Your task to perform on an android device: Show me productivity apps on the Play Store Image 0: 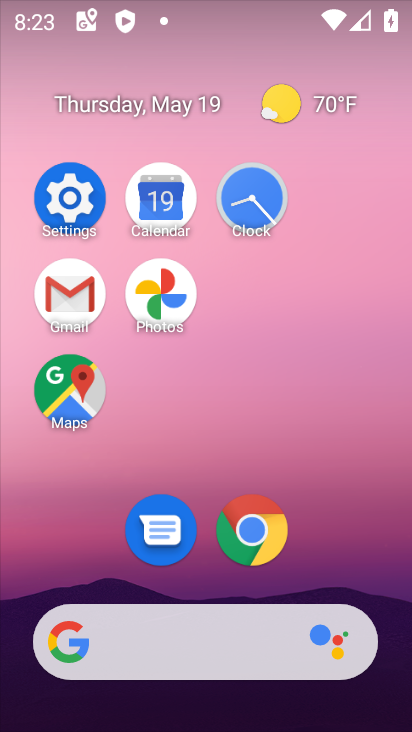
Step 0: drag from (319, 381) to (338, 146)
Your task to perform on an android device: Show me productivity apps on the Play Store Image 1: 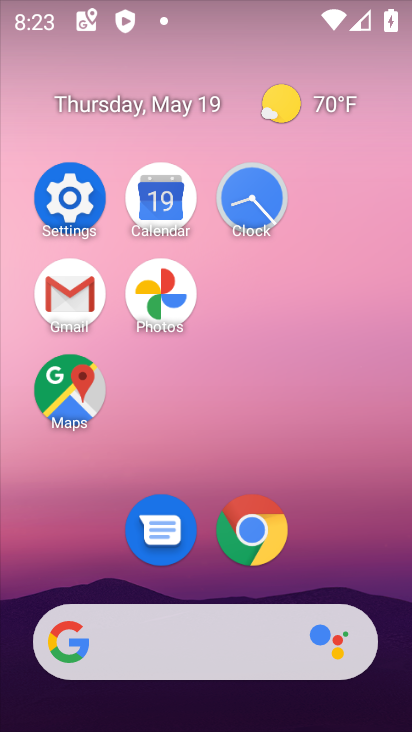
Step 1: drag from (260, 554) to (257, 103)
Your task to perform on an android device: Show me productivity apps on the Play Store Image 2: 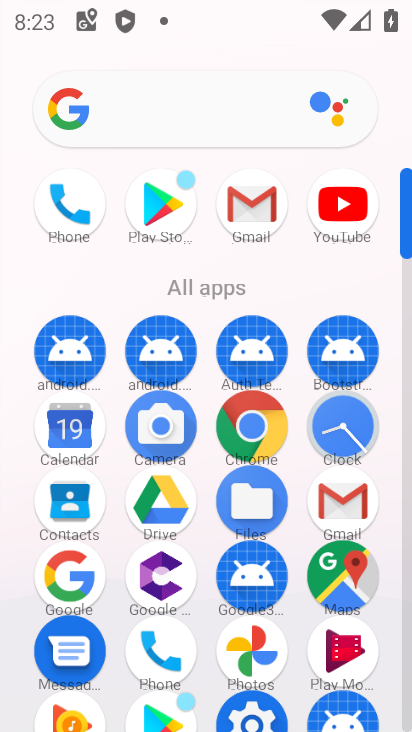
Step 2: drag from (198, 574) to (150, 247)
Your task to perform on an android device: Show me productivity apps on the Play Store Image 3: 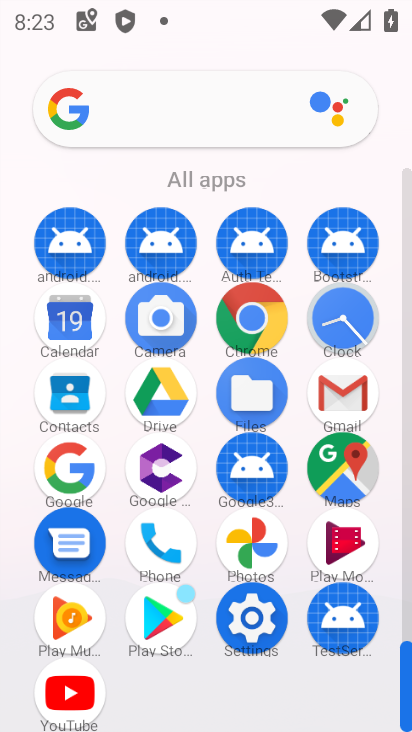
Step 3: click (133, 644)
Your task to perform on an android device: Show me productivity apps on the Play Store Image 4: 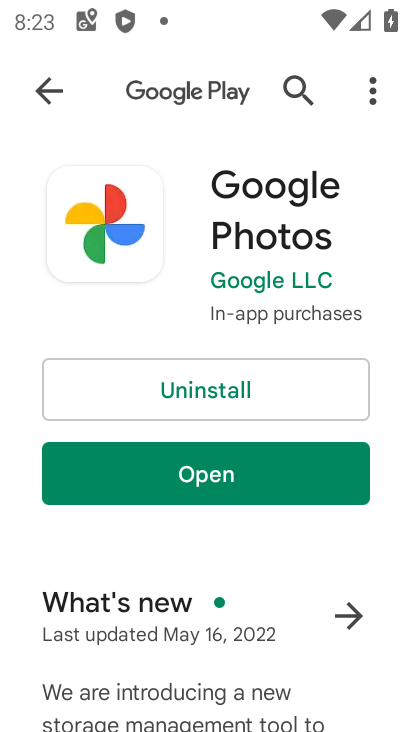
Step 4: click (57, 80)
Your task to perform on an android device: Show me productivity apps on the Play Store Image 5: 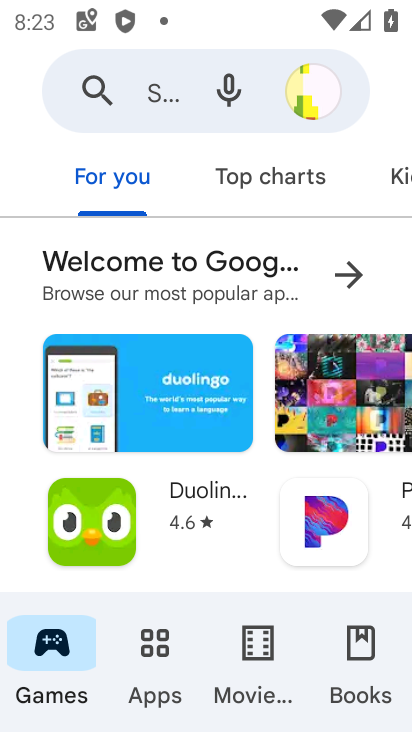
Step 5: click (168, 662)
Your task to perform on an android device: Show me productivity apps on the Play Store Image 6: 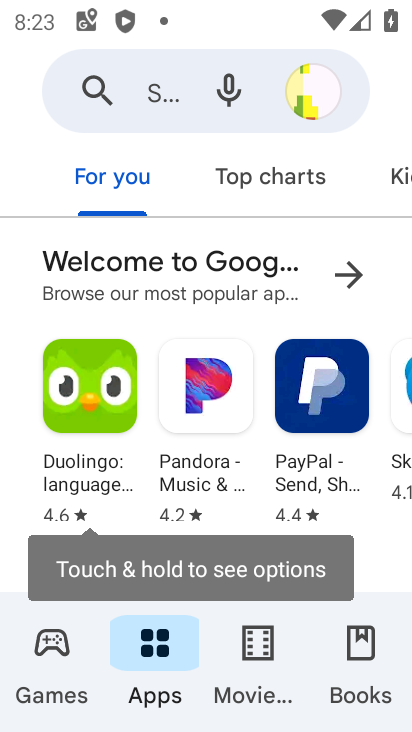
Step 6: drag from (356, 167) to (100, 165)
Your task to perform on an android device: Show me productivity apps on the Play Store Image 7: 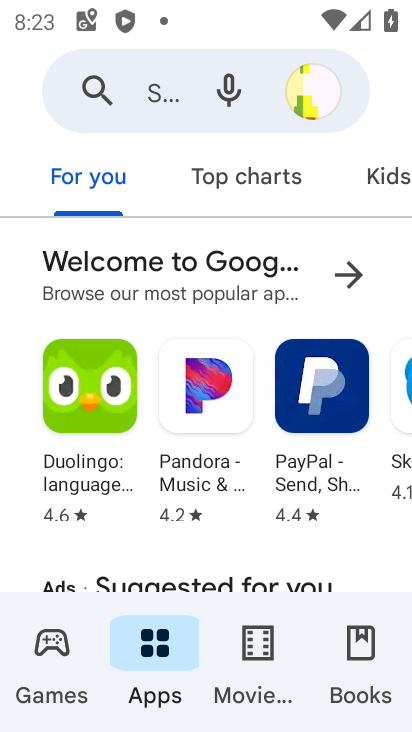
Step 7: drag from (344, 191) to (19, 187)
Your task to perform on an android device: Show me productivity apps on the Play Store Image 8: 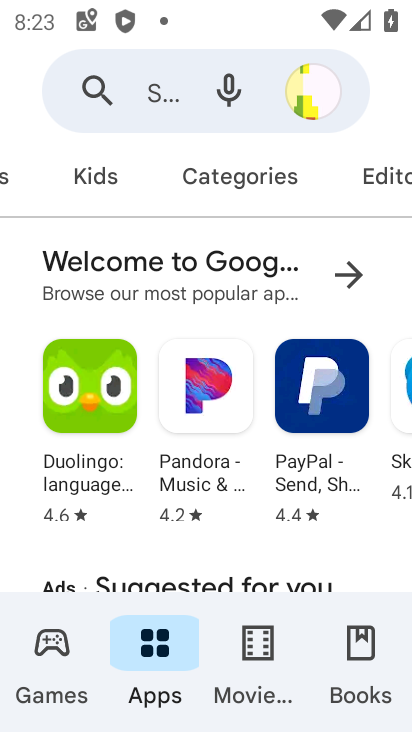
Step 8: click (193, 174)
Your task to perform on an android device: Show me productivity apps on the Play Store Image 9: 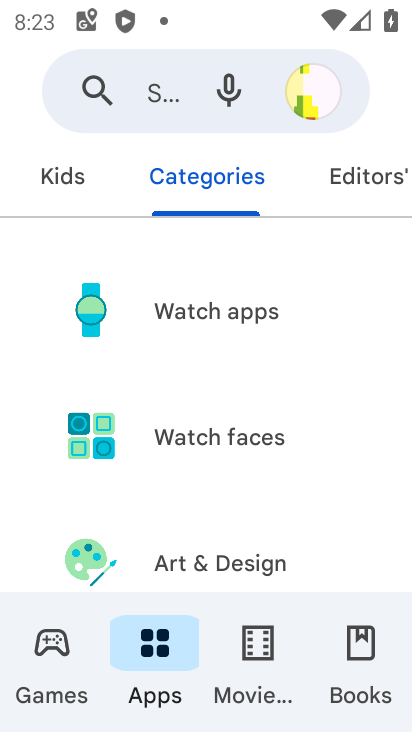
Step 9: drag from (242, 512) to (296, 77)
Your task to perform on an android device: Show me productivity apps on the Play Store Image 10: 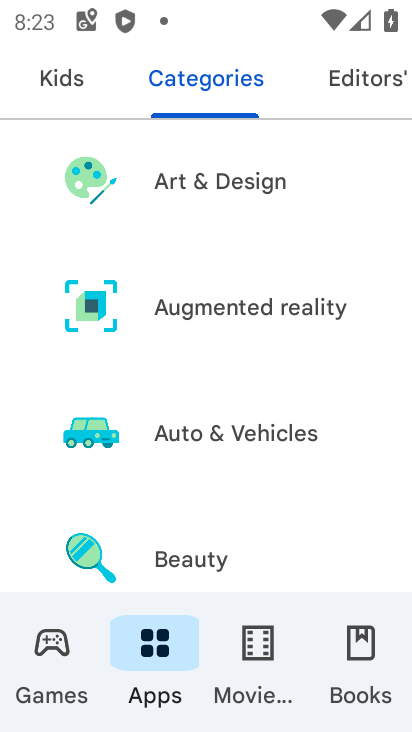
Step 10: drag from (264, 559) to (235, 29)
Your task to perform on an android device: Show me productivity apps on the Play Store Image 11: 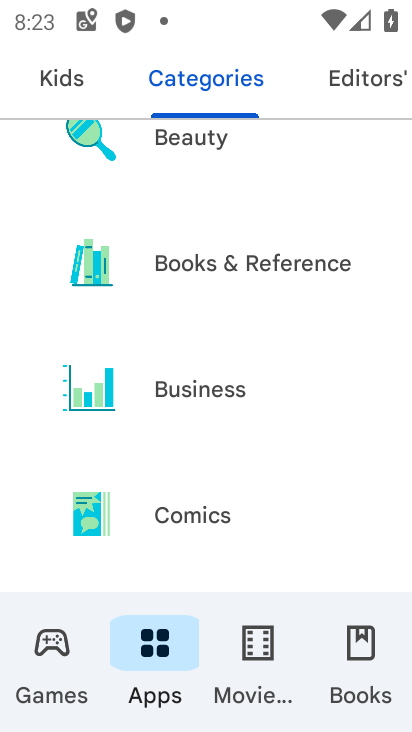
Step 11: drag from (220, 529) to (270, 1)
Your task to perform on an android device: Show me productivity apps on the Play Store Image 12: 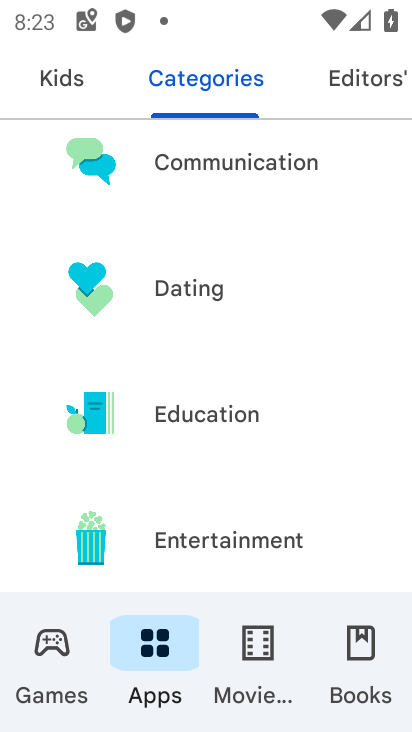
Step 12: drag from (261, 511) to (275, 21)
Your task to perform on an android device: Show me productivity apps on the Play Store Image 13: 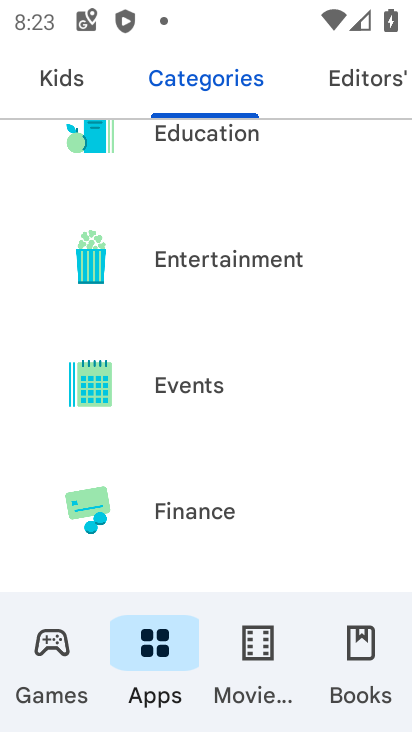
Step 13: drag from (307, 529) to (259, 41)
Your task to perform on an android device: Show me productivity apps on the Play Store Image 14: 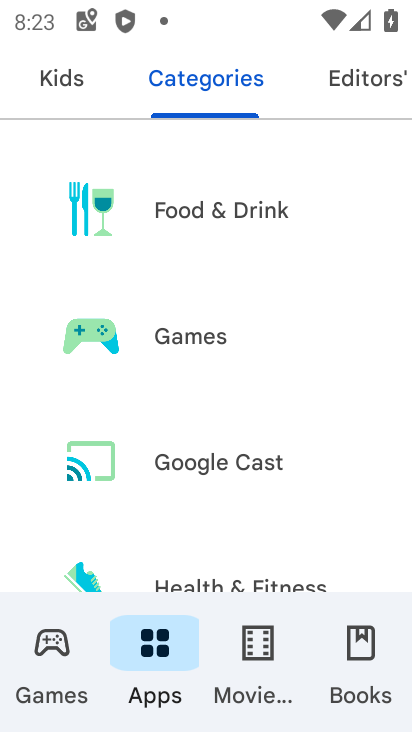
Step 14: drag from (246, 526) to (326, 132)
Your task to perform on an android device: Show me productivity apps on the Play Store Image 15: 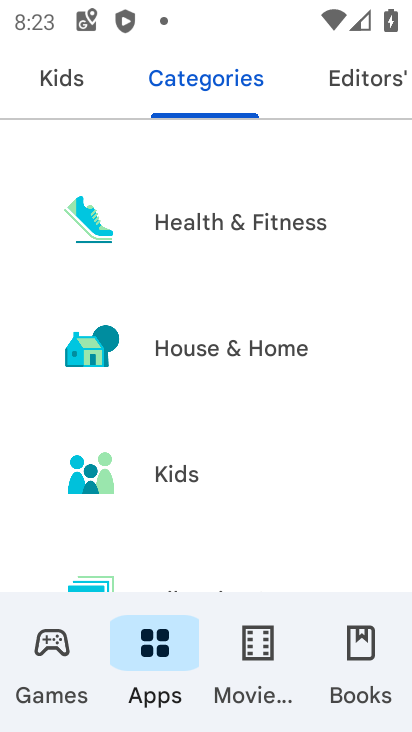
Step 15: drag from (280, 534) to (289, 149)
Your task to perform on an android device: Show me productivity apps on the Play Store Image 16: 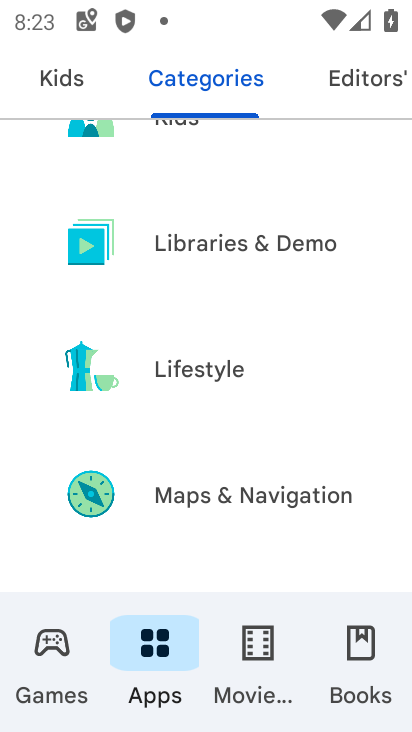
Step 16: drag from (229, 543) to (233, 178)
Your task to perform on an android device: Show me productivity apps on the Play Store Image 17: 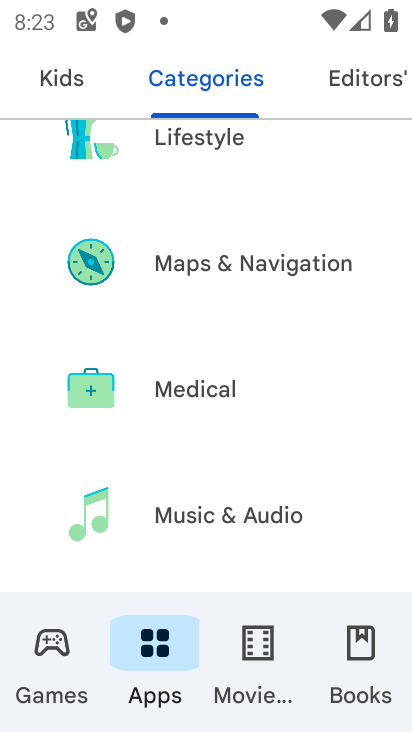
Step 17: drag from (262, 585) to (262, 173)
Your task to perform on an android device: Show me productivity apps on the Play Store Image 18: 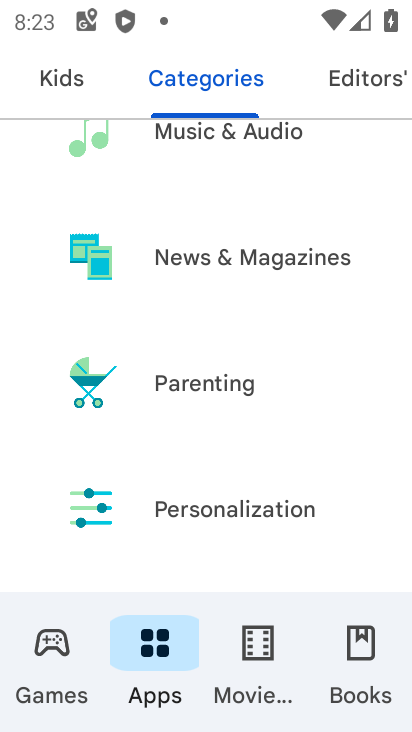
Step 18: drag from (253, 535) to (234, 96)
Your task to perform on an android device: Show me productivity apps on the Play Store Image 19: 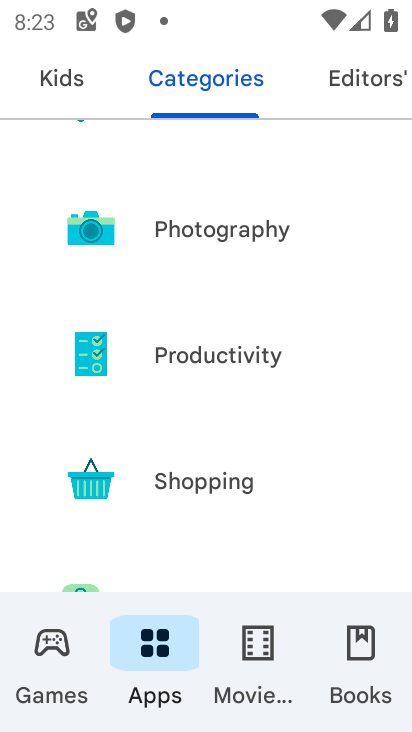
Step 19: click (143, 362)
Your task to perform on an android device: Show me productivity apps on the Play Store Image 20: 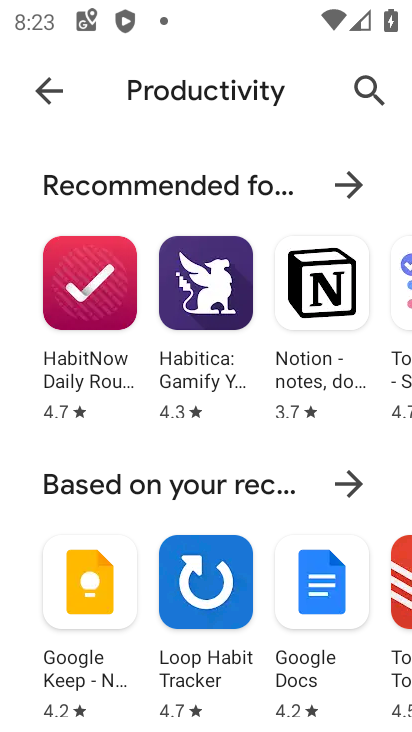
Step 20: task complete